Your task to perform on an android device: Show me the alarms in the clock app Image 0: 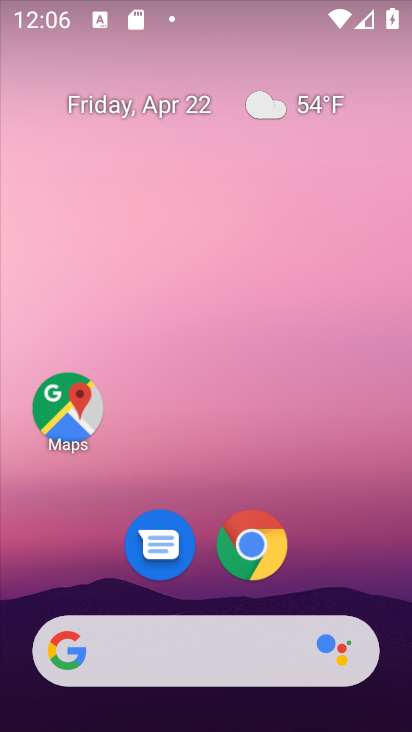
Step 0: drag from (270, 472) to (260, 92)
Your task to perform on an android device: Show me the alarms in the clock app Image 1: 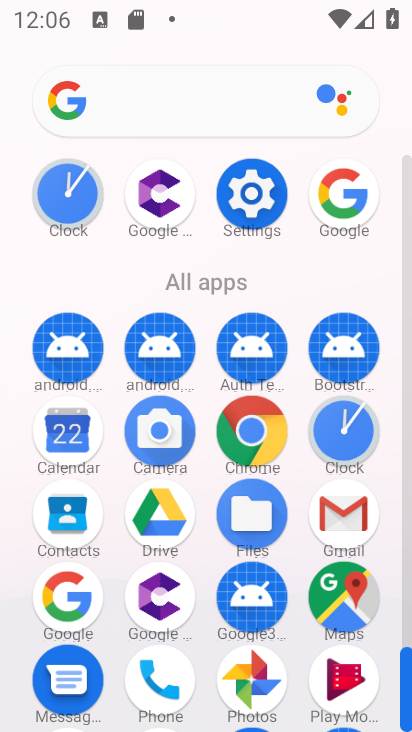
Step 1: click (343, 450)
Your task to perform on an android device: Show me the alarms in the clock app Image 2: 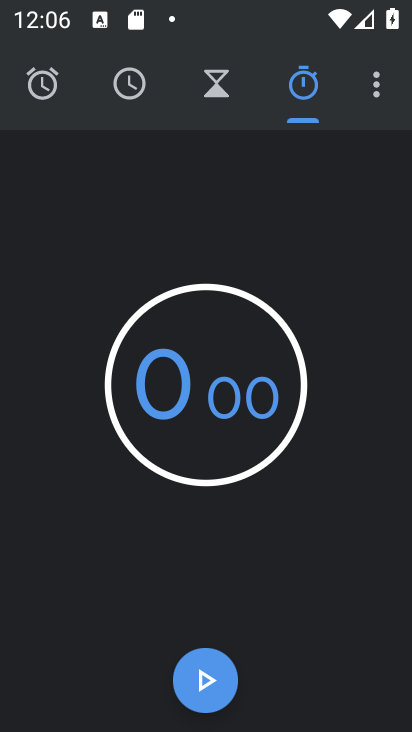
Step 2: click (52, 97)
Your task to perform on an android device: Show me the alarms in the clock app Image 3: 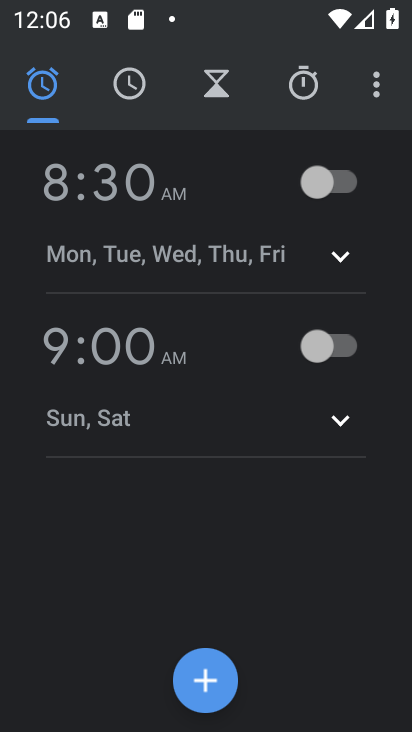
Step 3: task complete